Your task to perform on an android device: turn off translation in the chrome app Image 0: 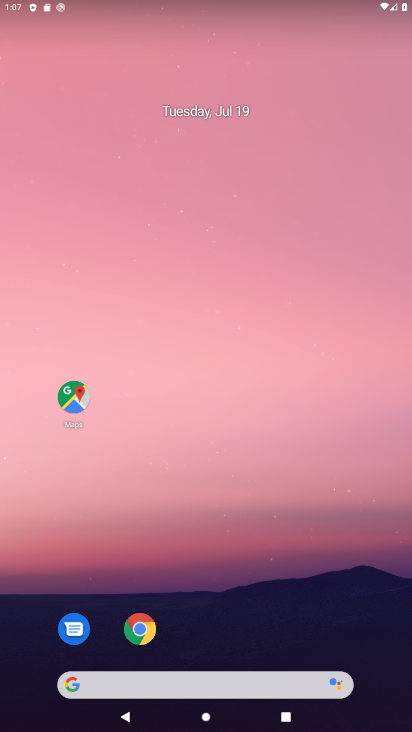
Step 0: press home button
Your task to perform on an android device: turn off translation in the chrome app Image 1: 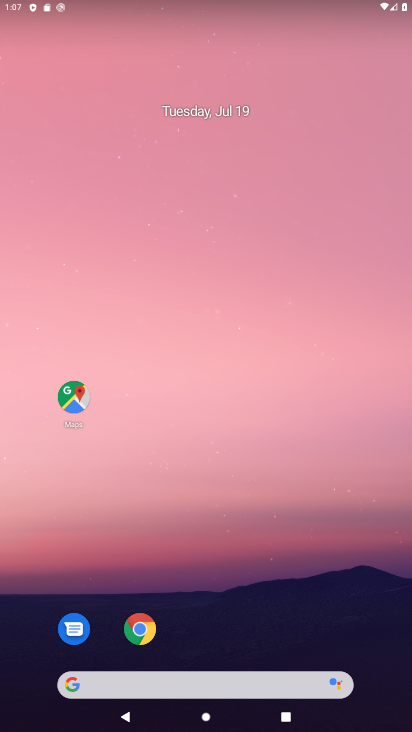
Step 1: click (139, 635)
Your task to perform on an android device: turn off translation in the chrome app Image 2: 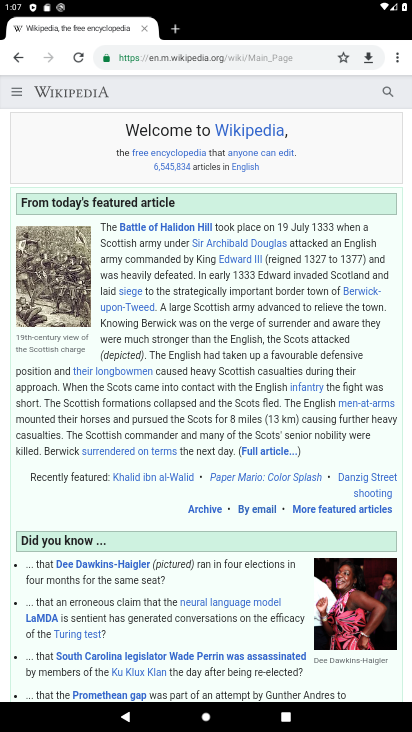
Step 2: click (395, 54)
Your task to perform on an android device: turn off translation in the chrome app Image 3: 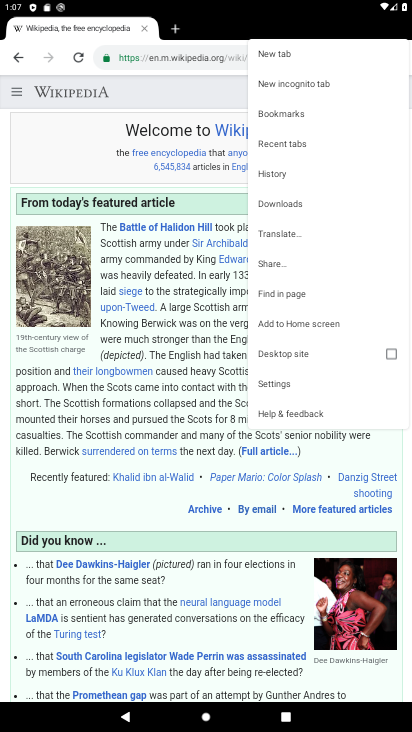
Step 3: click (288, 380)
Your task to perform on an android device: turn off translation in the chrome app Image 4: 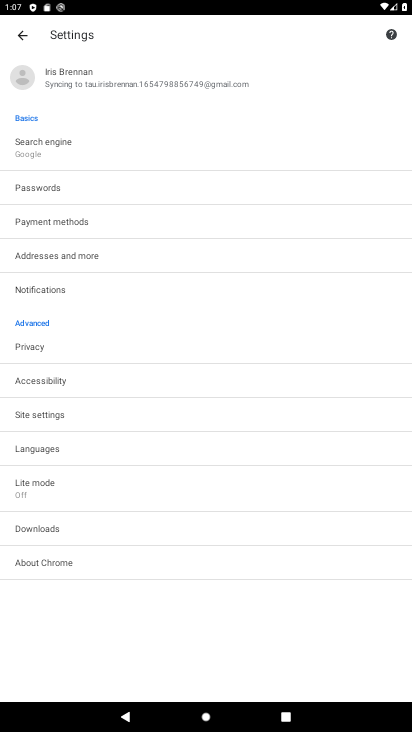
Step 4: click (42, 453)
Your task to perform on an android device: turn off translation in the chrome app Image 5: 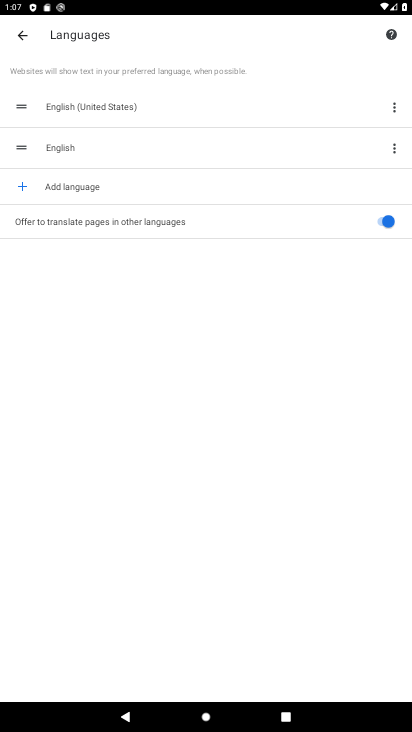
Step 5: click (368, 222)
Your task to perform on an android device: turn off translation in the chrome app Image 6: 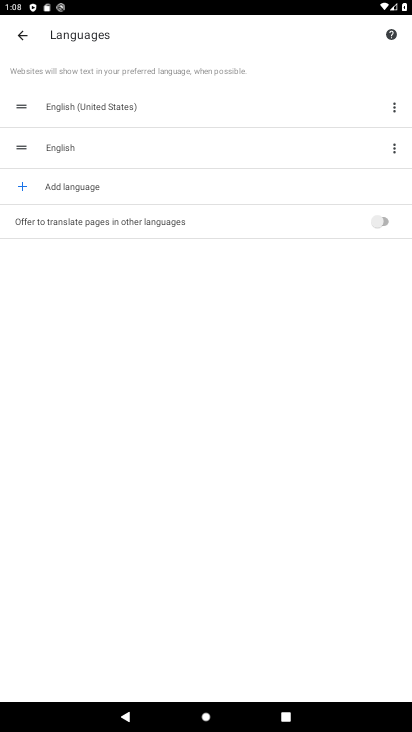
Step 6: task complete